Your task to perform on an android device: Open Google Image 0: 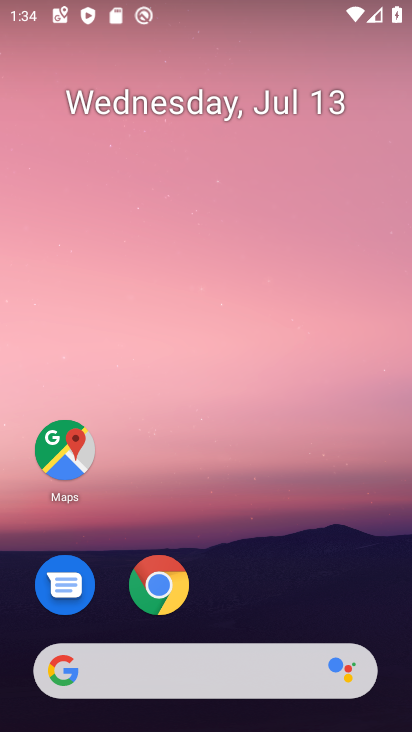
Step 0: drag from (253, 666) to (374, 150)
Your task to perform on an android device: Open Google Image 1: 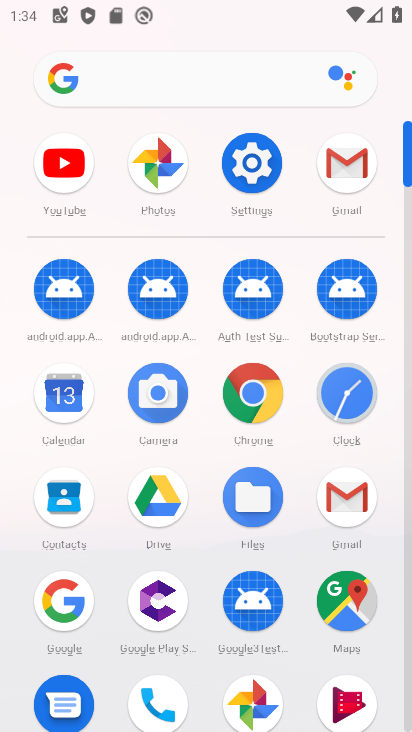
Step 1: click (63, 611)
Your task to perform on an android device: Open Google Image 2: 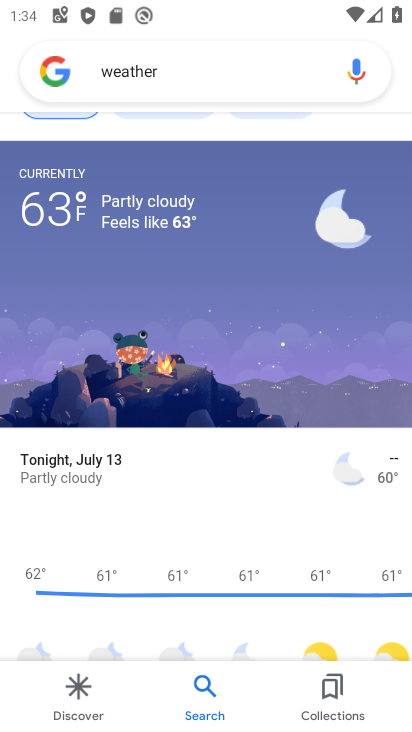
Step 2: task complete